Your task to perform on an android device: Turn on the flashlight Image 0: 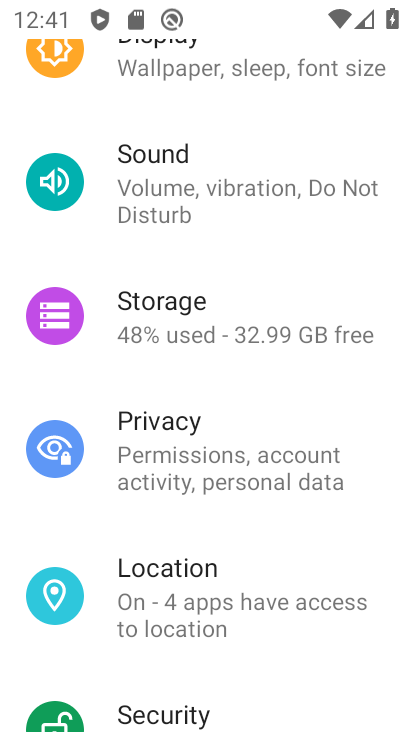
Step 0: drag from (358, 14) to (335, 506)
Your task to perform on an android device: Turn on the flashlight Image 1: 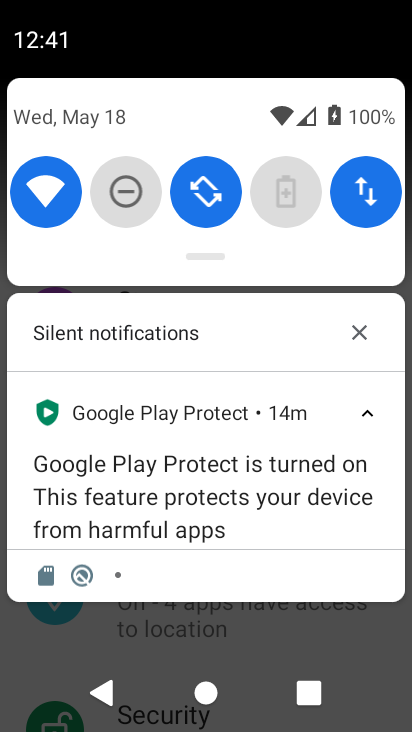
Step 1: drag from (220, 252) to (241, 637)
Your task to perform on an android device: Turn on the flashlight Image 2: 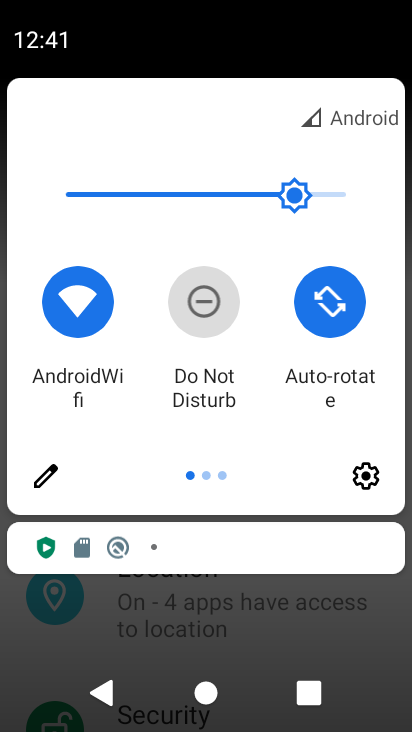
Step 2: click (49, 480)
Your task to perform on an android device: Turn on the flashlight Image 3: 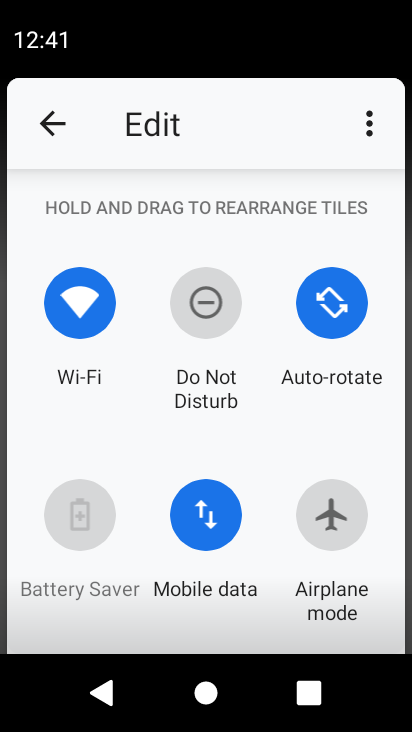
Step 3: task complete